Your task to perform on an android device: open a bookmark in the chrome app Image 0: 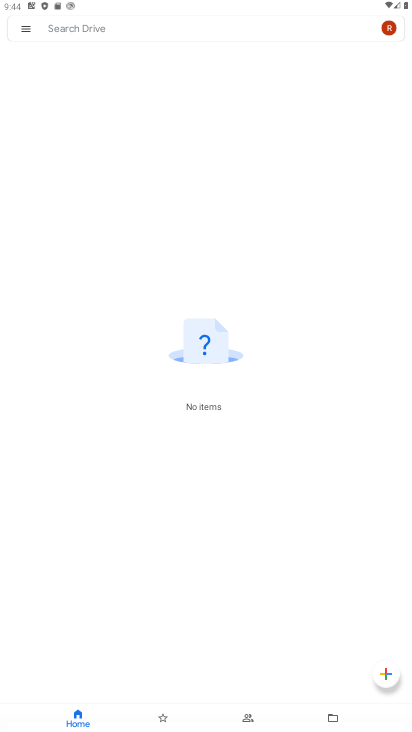
Step 0: press home button
Your task to perform on an android device: open a bookmark in the chrome app Image 1: 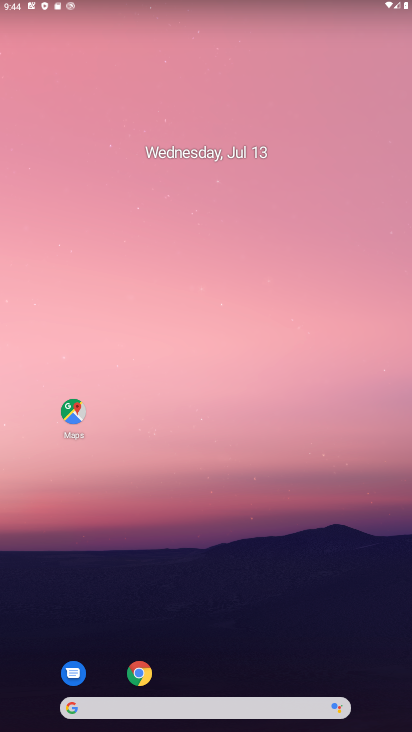
Step 1: click (148, 671)
Your task to perform on an android device: open a bookmark in the chrome app Image 2: 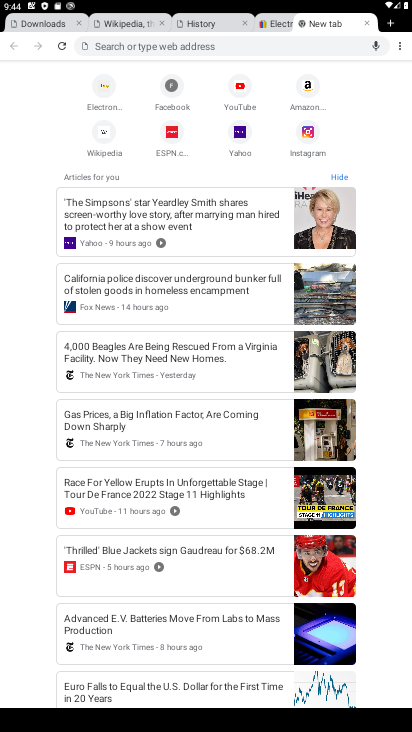
Step 2: click (400, 45)
Your task to perform on an android device: open a bookmark in the chrome app Image 3: 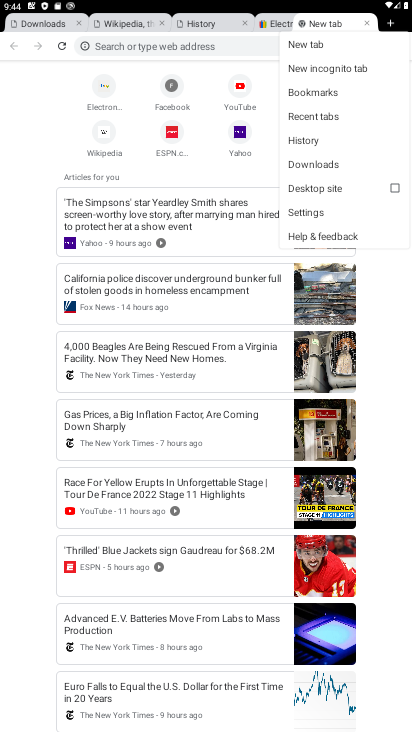
Step 3: click (347, 95)
Your task to perform on an android device: open a bookmark in the chrome app Image 4: 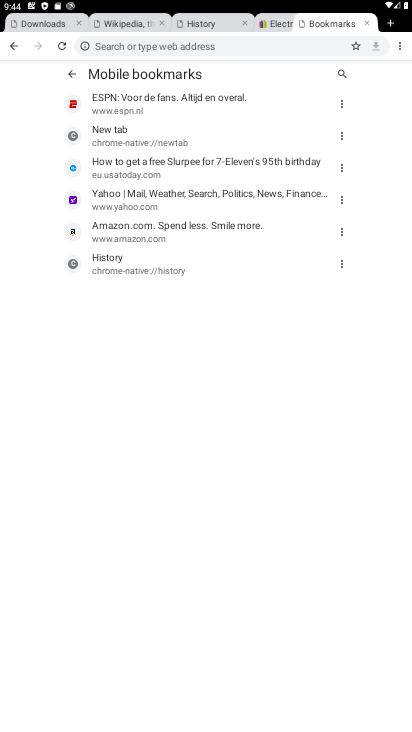
Step 4: click (120, 161)
Your task to perform on an android device: open a bookmark in the chrome app Image 5: 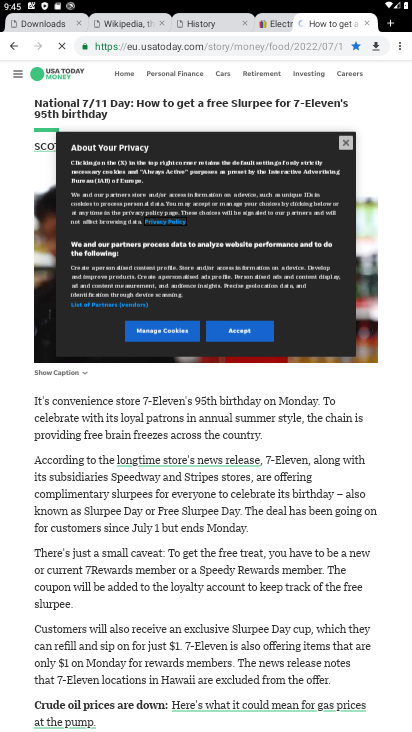
Step 5: task complete